Your task to perform on an android device: make emails show in primary in the gmail app Image 0: 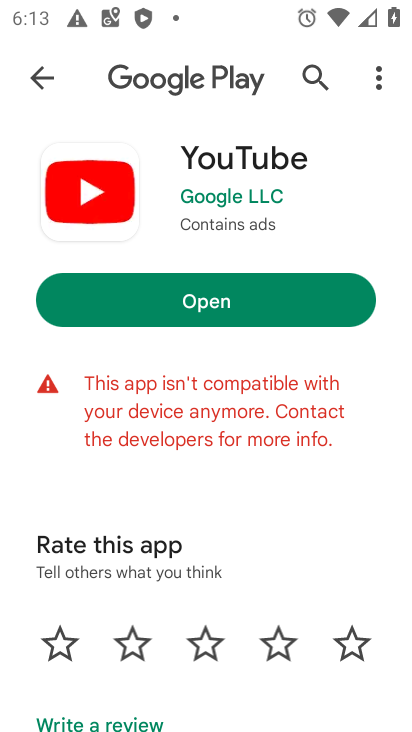
Step 0: press home button
Your task to perform on an android device: make emails show in primary in the gmail app Image 1: 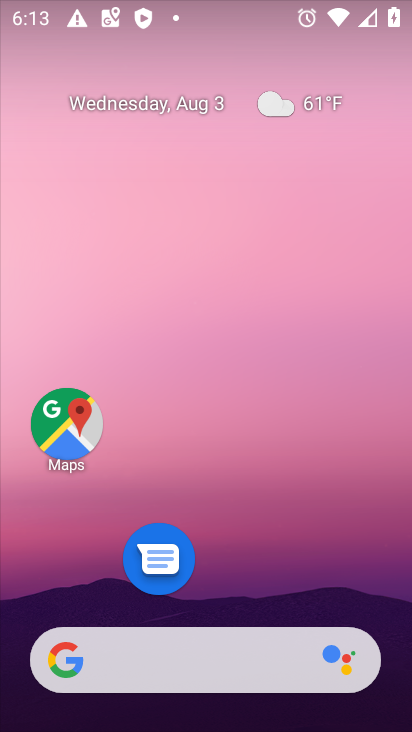
Step 1: drag from (230, 569) to (251, 257)
Your task to perform on an android device: make emails show in primary in the gmail app Image 2: 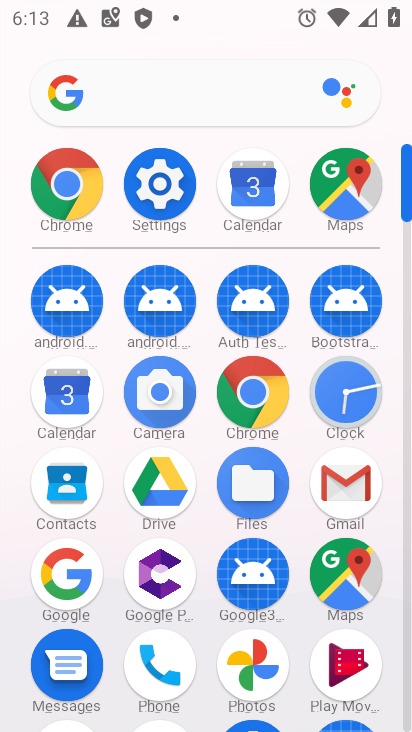
Step 2: click (341, 486)
Your task to perform on an android device: make emails show in primary in the gmail app Image 3: 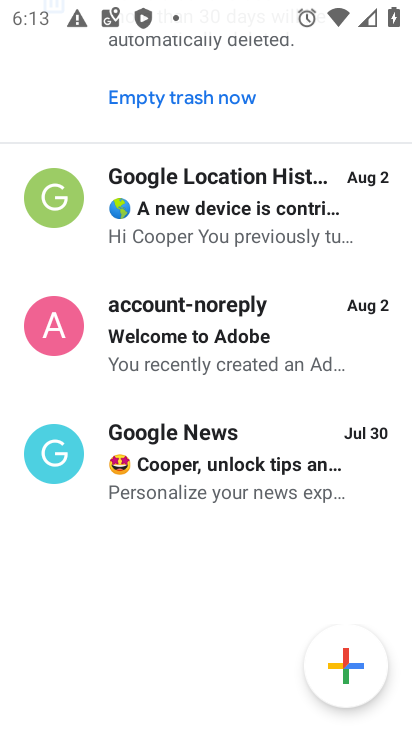
Step 3: drag from (110, 194) to (93, 566)
Your task to perform on an android device: make emails show in primary in the gmail app Image 4: 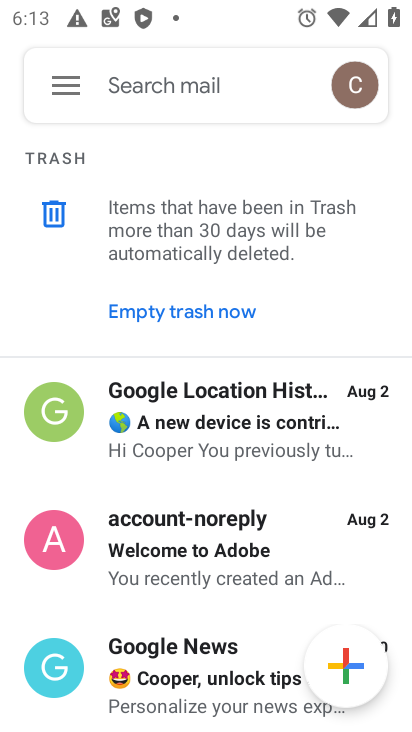
Step 4: click (51, 90)
Your task to perform on an android device: make emails show in primary in the gmail app Image 5: 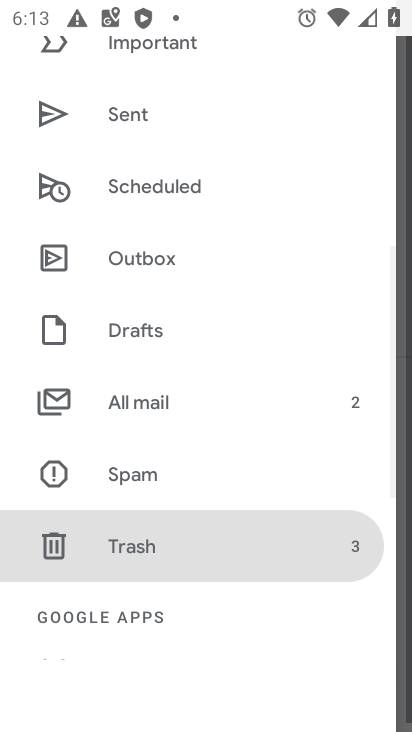
Step 5: drag from (137, 340) to (139, 633)
Your task to perform on an android device: make emails show in primary in the gmail app Image 6: 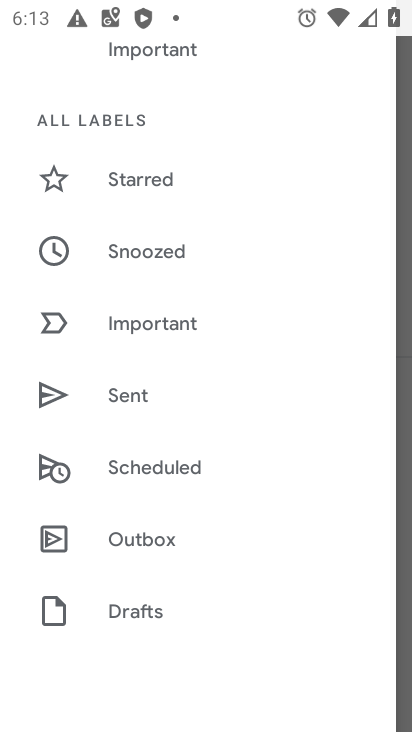
Step 6: drag from (186, 59) to (171, 561)
Your task to perform on an android device: make emails show in primary in the gmail app Image 7: 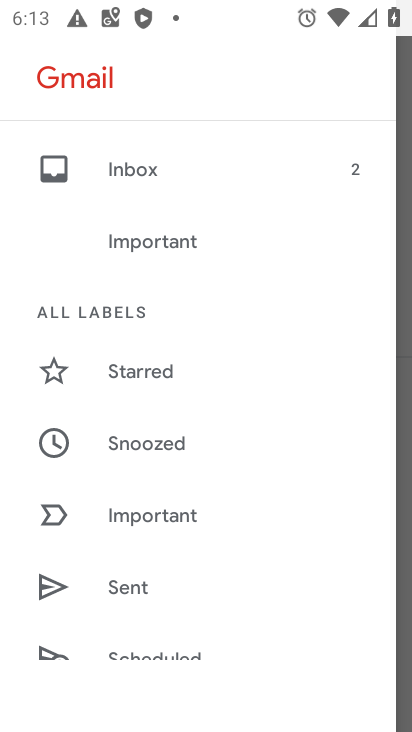
Step 7: click (131, 176)
Your task to perform on an android device: make emails show in primary in the gmail app Image 8: 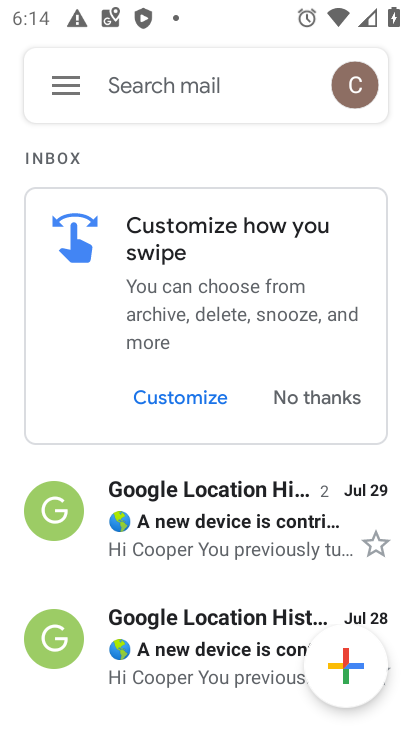
Step 8: click (63, 93)
Your task to perform on an android device: make emails show in primary in the gmail app Image 9: 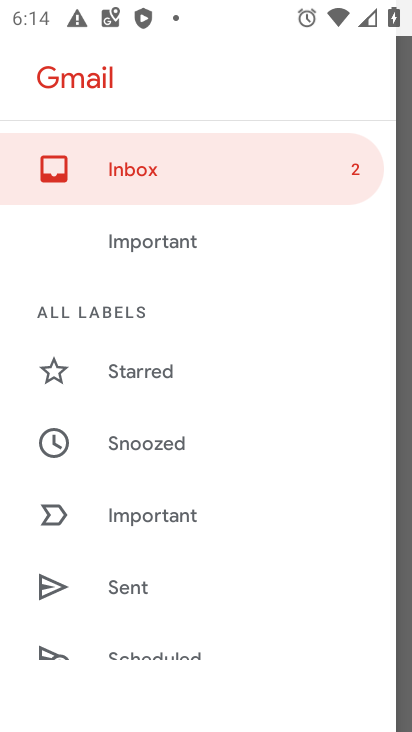
Step 9: drag from (154, 649) to (140, 312)
Your task to perform on an android device: make emails show in primary in the gmail app Image 10: 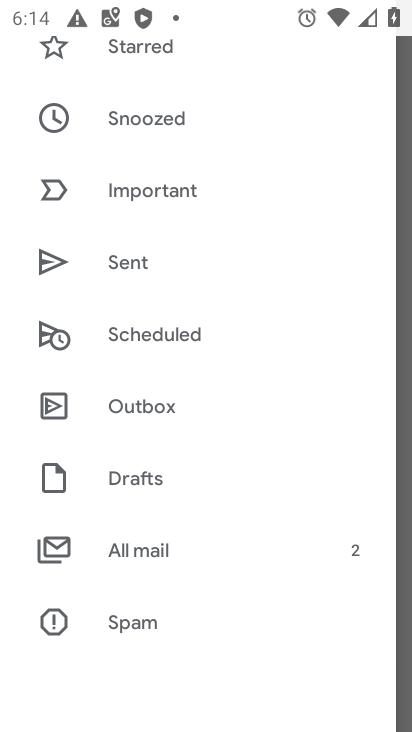
Step 10: drag from (131, 652) to (128, 182)
Your task to perform on an android device: make emails show in primary in the gmail app Image 11: 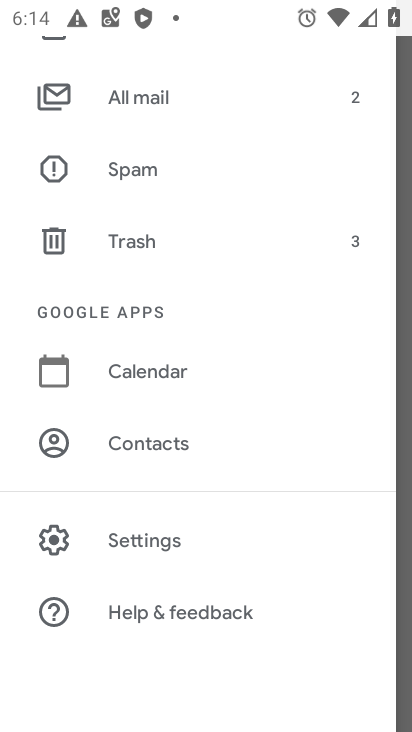
Step 11: click (137, 541)
Your task to perform on an android device: make emails show in primary in the gmail app Image 12: 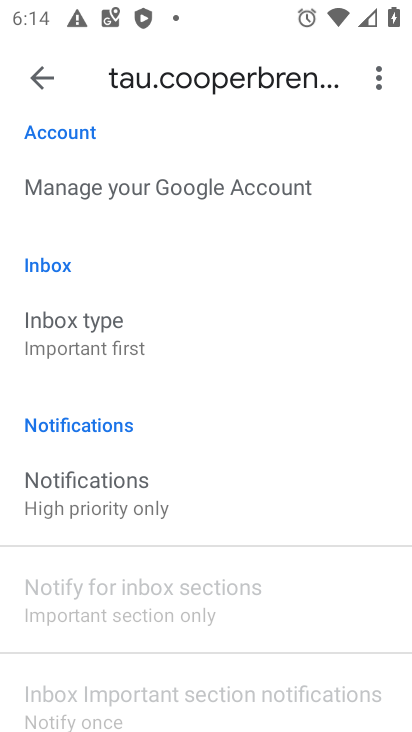
Step 12: drag from (73, 671) to (75, 339)
Your task to perform on an android device: make emails show in primary in the gmail app Image 13: 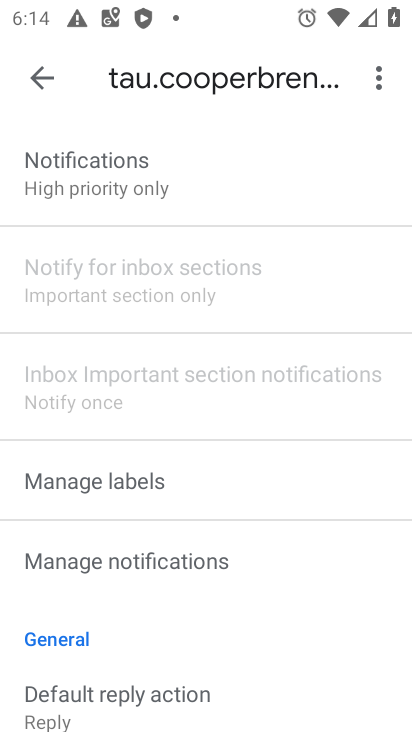
Step 13: drag from (123, 679) to (132, 349)
Your task to perform on an android device: make emails show in primary in the gmail app Image 14: 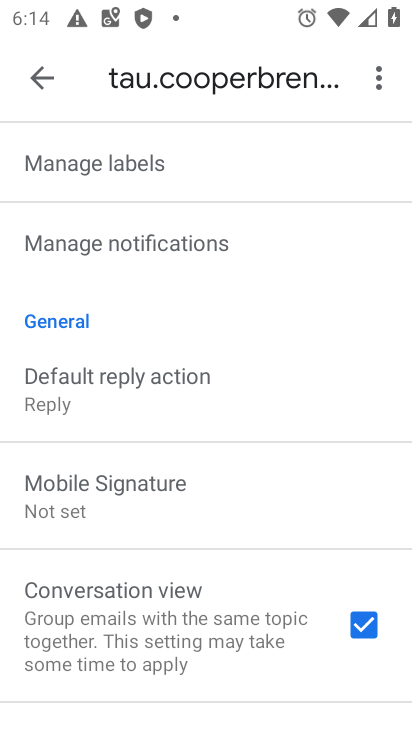
Step 14: drag from (106, 625) to (152, 275)
Your task to perform on an android device: make emails show in primary in the gmail app Image 15: 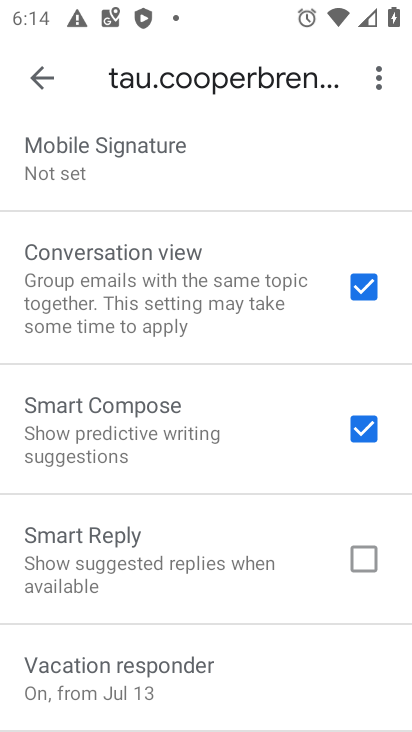
Step 15: drag from (143, 679) to (143, 360)
Your task to perform on an android device: make emails show in primary in the gmail app Image 16: 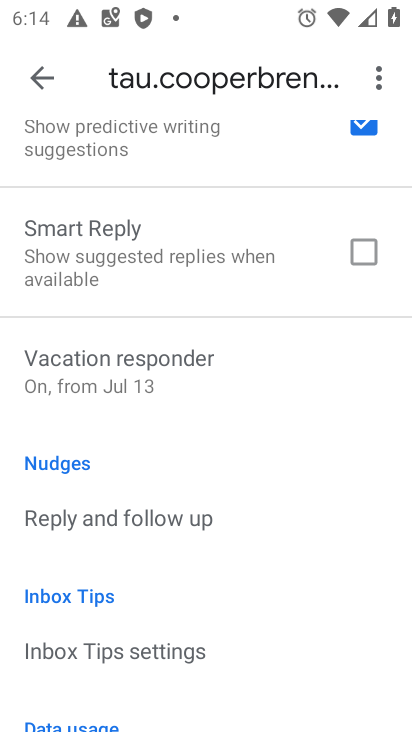
Step 16: drag from (128, 691) to (130, 322)
Your task to perform on an android device: make emails show in primary in the gmail app Image 17: 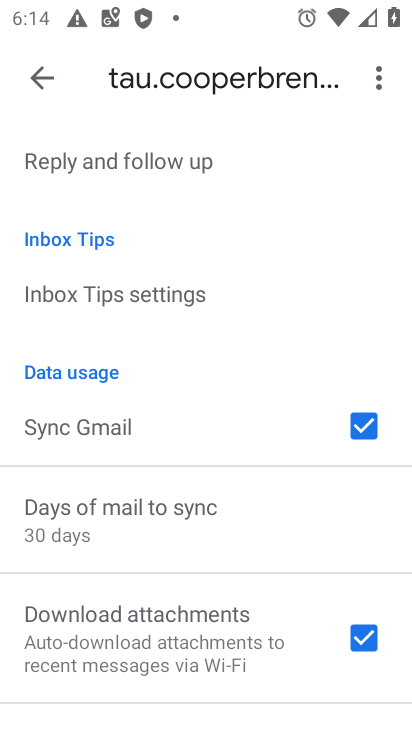
Step 17: drag from (110, 680) to (110, 245)
Your task to perform on an android device: make emails show in primary in the gmail app Image 18: 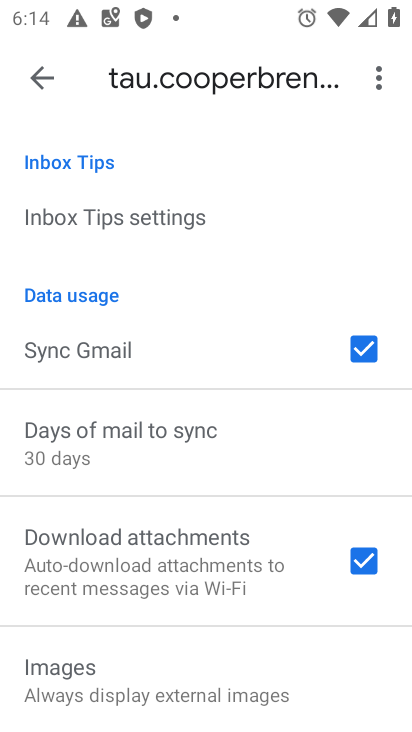
Step 18: drag from (119, 714) to (116, 307)
Your task to perform on an android device: make emails show in primary in the gmail app Image 19: 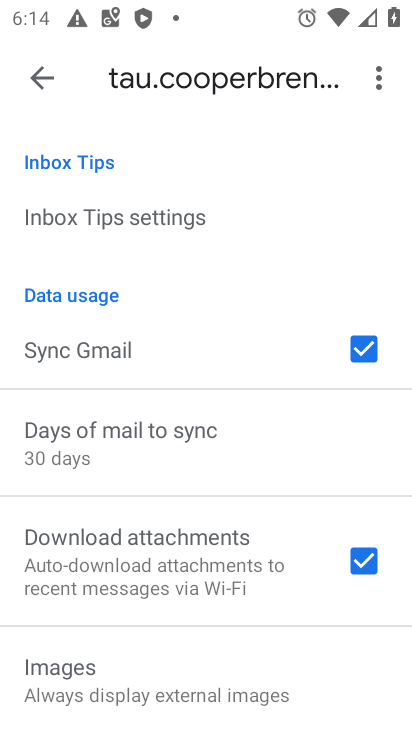
Step 19: drag from (127, 684) to (127, 336)
Your task to perform on an android device: make emails show in primary in the gmail app Image 20: 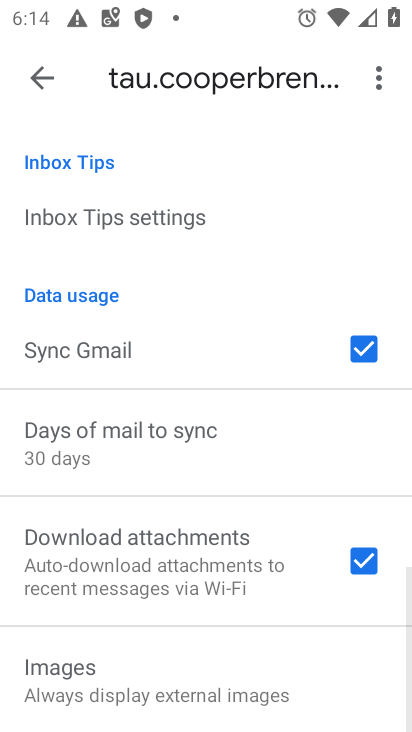
Step 20: drag from (67, 681) to (67, 247)
Your task to perform on an android device: make emails show in primary in the gmail app Image 21: 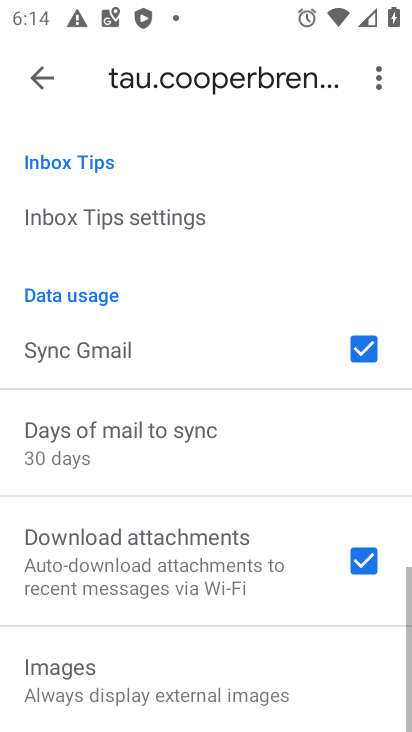
Step 21: drag from (67, 172) to (69, 651)
Your task to perform on an android device: make emails show in primary in the gmail app Image 22: 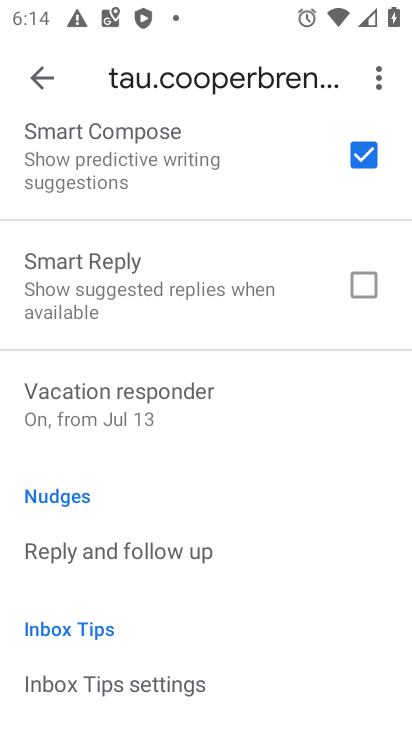
Step 22: drag from (97, 195) to (98, 596)
Your task to perform on an android device: make emails show in primary in the gmail app Image 23: 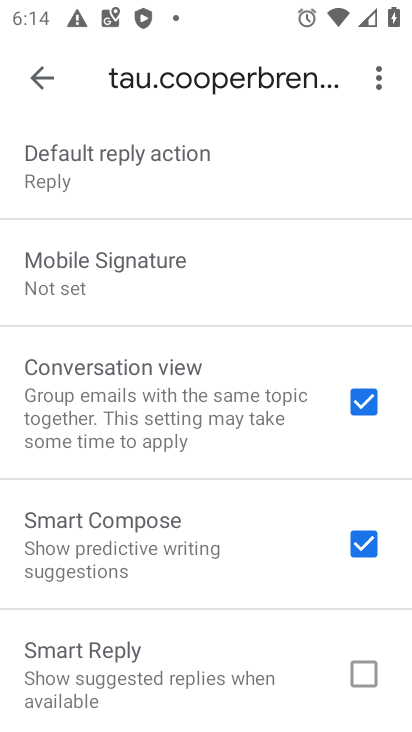
Step 23: drag from (87, 196) to (87, 463)
Your task to perform on an android device: make emails show in primary in the gmail app Image 24: 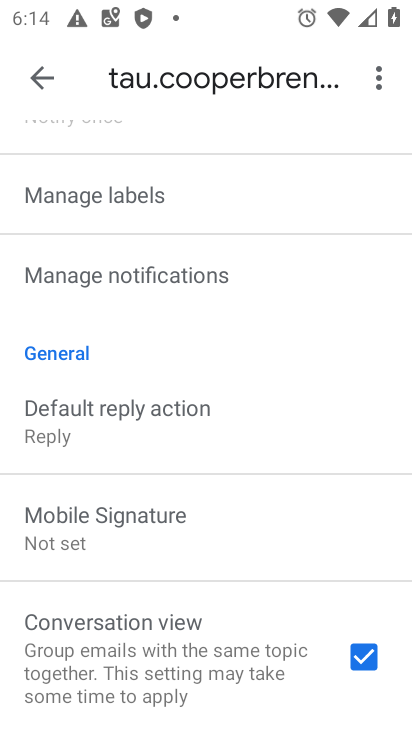
Step 24: drag from (77, 186) to (90, 503)
Your task to perform on an android device: make emails show in primary in the gmail app Image 25: 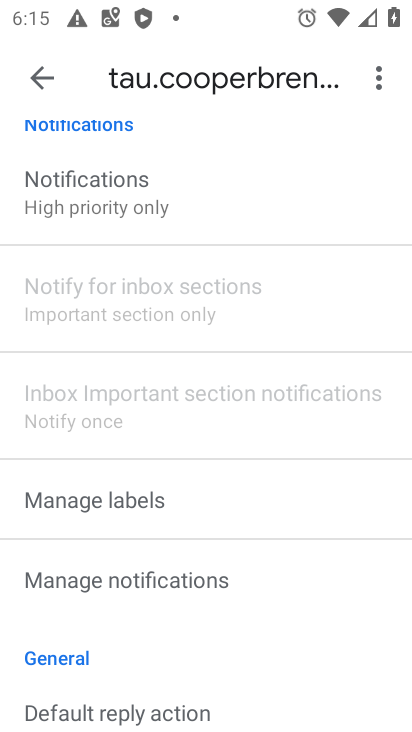
Step 25: drag from (69, 131) to (79, 499)
Your task to perform on an android device: make emails show in primary in the gmail app Image 26: 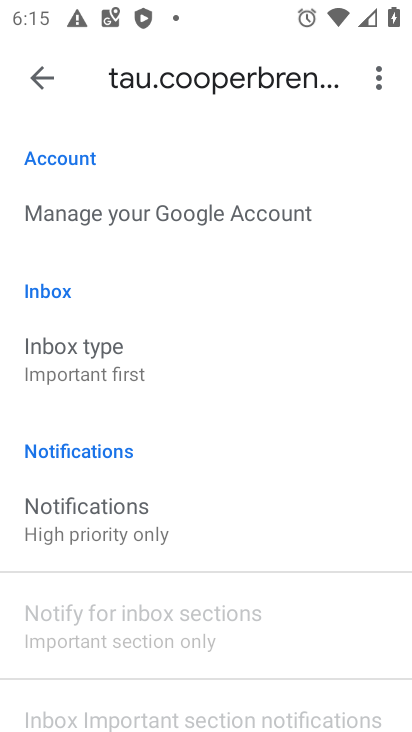
Step 26: click (80, 356)
Your task to perform on an android device: make emails show in primary in the gmail app Image 27: 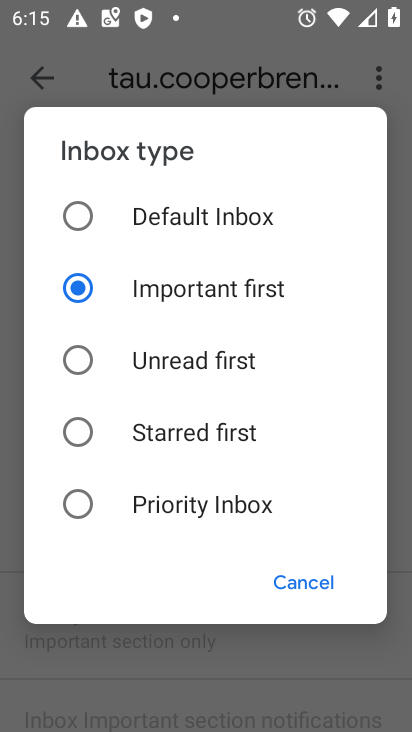
Step 27: click (160, 217)
Your task to perform on an android device: make emails show in primary in the gmail app Image 28: 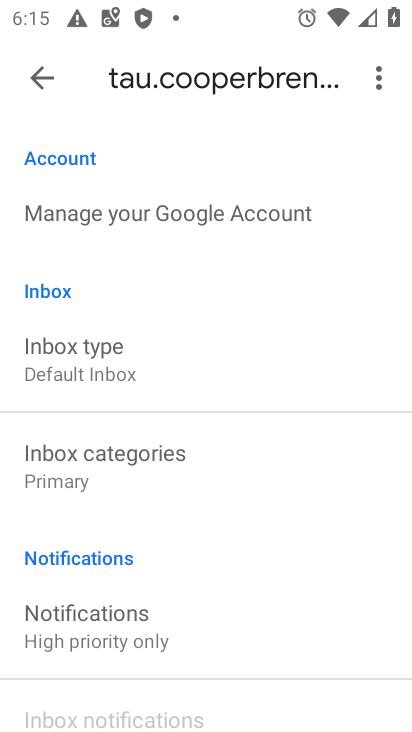
Step 28: task complete